Your task to perform on an android device: When is my next appointment? Image 0: 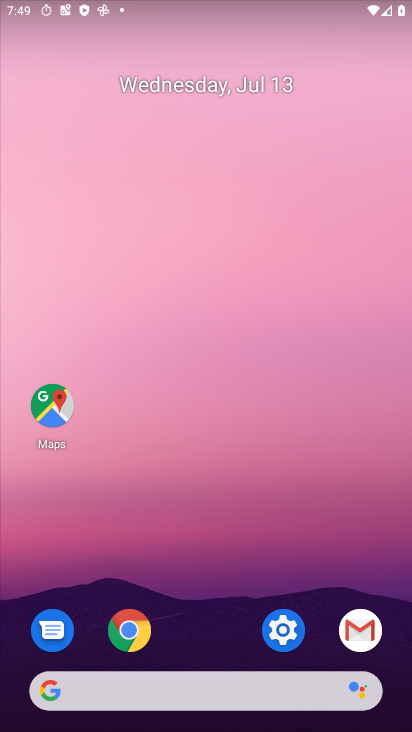
Step 0: press home button
Your task to perform on an android device: When is my next appointment? Image 1: 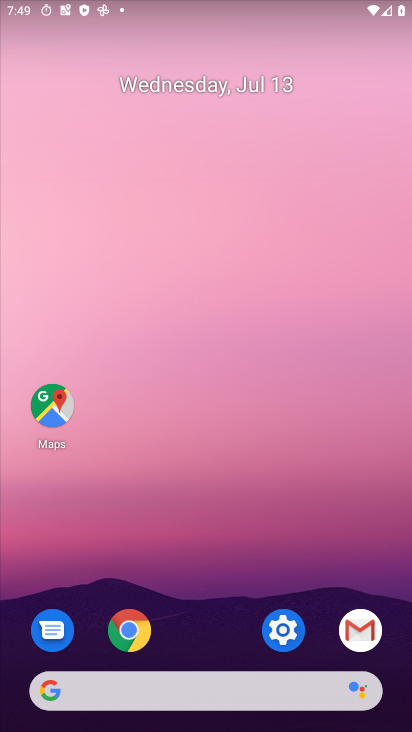
Step 1: drag from (212, 717) to (159, 279)
Your task to perform on an android device: When is my next appointment? Image 2: 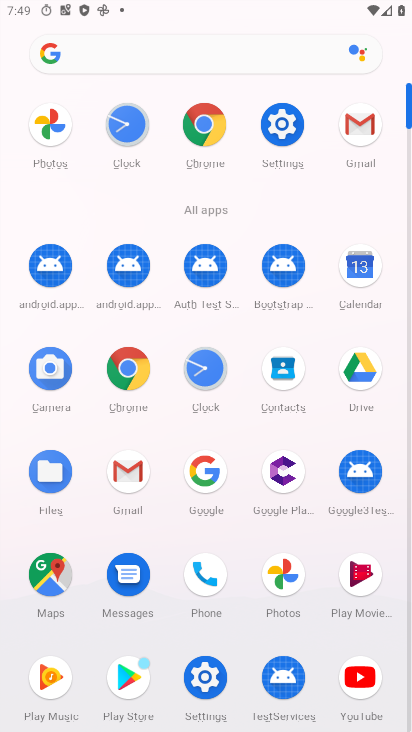
Step 2: click (350, 272)
Your task to perform on an android device: When is my next appointment? Image 3: 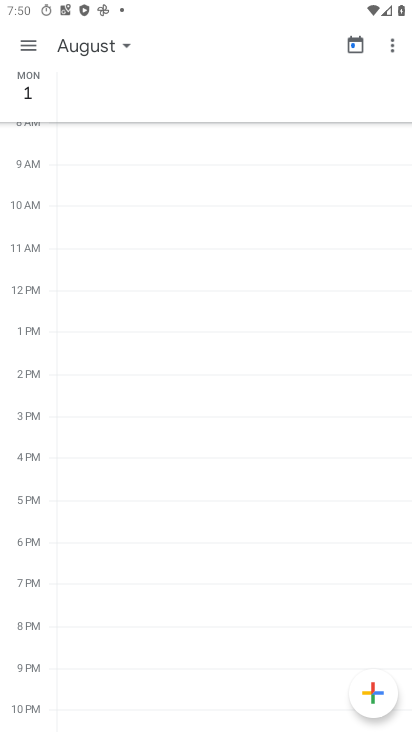
Step 3: click (33, 48)
Your task to perform on an android device: When is my next appointment? Image 4: 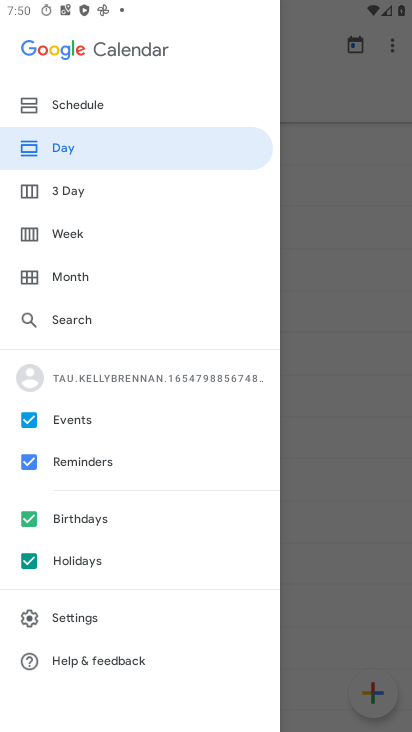
Step 4: click (68, 106)
Your task to perform on an android device: When is my next appointment? Image 5: 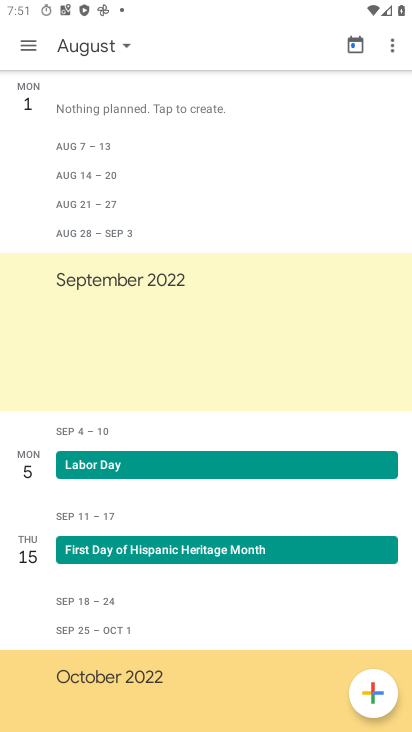
Step 5: task complete